Your task to perform on an android device: visit the assistant section in the google photos Image 0: 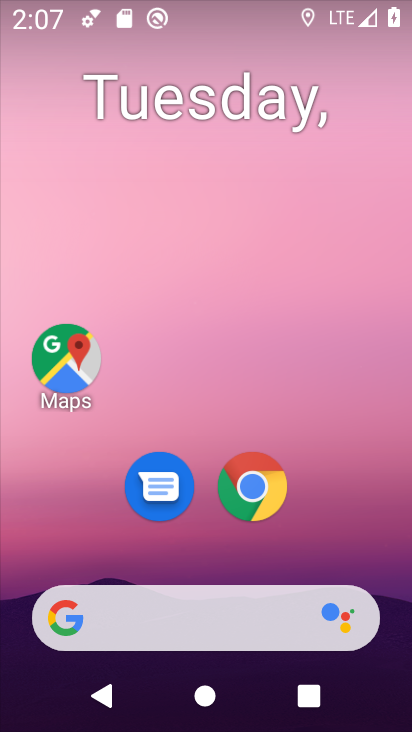
Step 0: press home button
Your task to perform on an android device: visit the assistant section in the google photos Image 1: 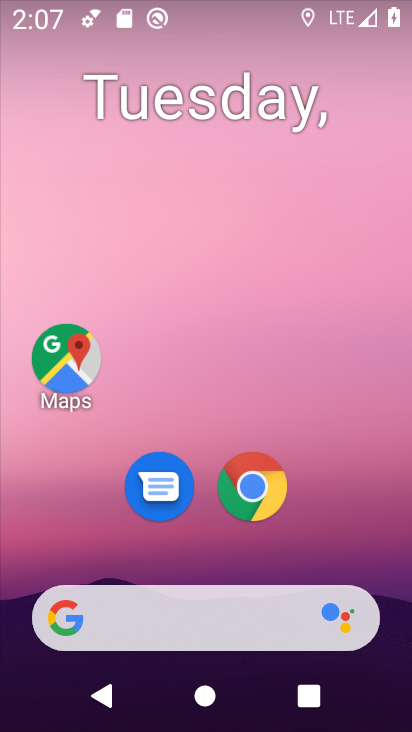
Step 1: drag from (340, 531) to (341, 87)
Your task to perform on an android device: visit the assistant section in the google photos Image 2: 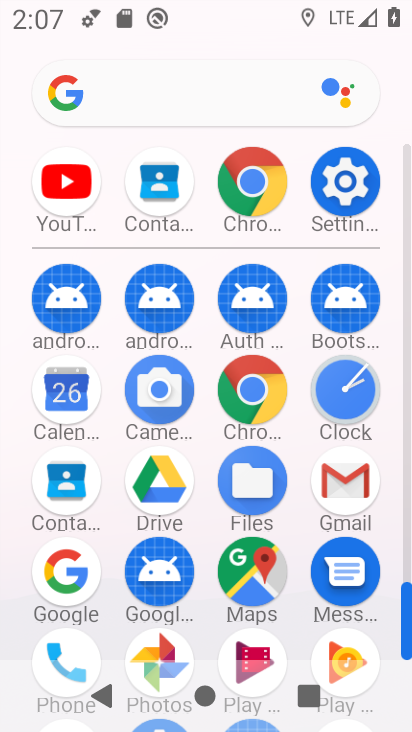
Step 2: drag from (402, 483) to (396, 325)
Your task to perform on an android device: visit the assistant section in the google photos Image 3: 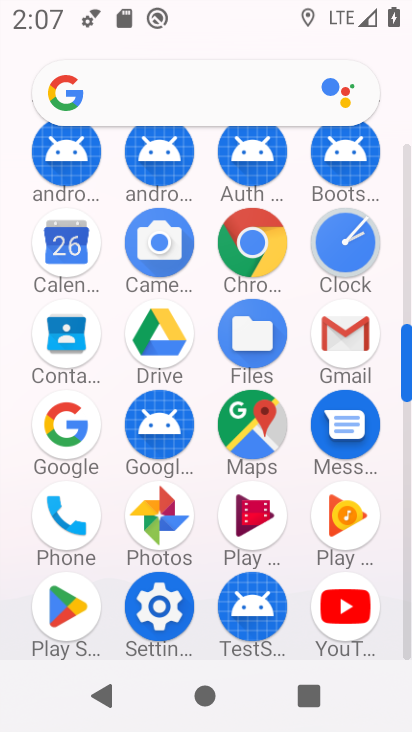
Step 3: click (173, 515)
Your task to perform on an android device: visit the assistant section in the google photos Image 4: 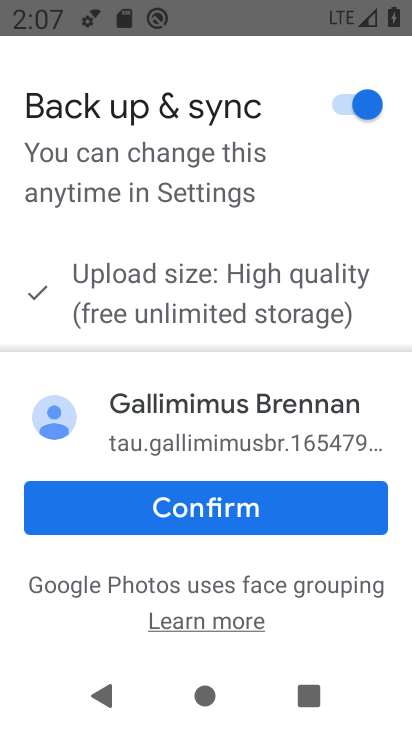
Step 4: click (386, 503)
Your task to perform on an android device: visit the assistant section in the google photos Image 5: 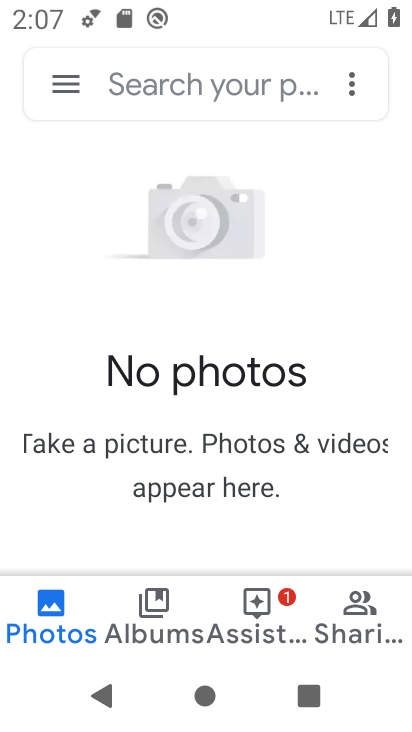
Step 5: click (274, 610)
Your task to perform on an android device: visit the assistant section in the google photos Image 6: 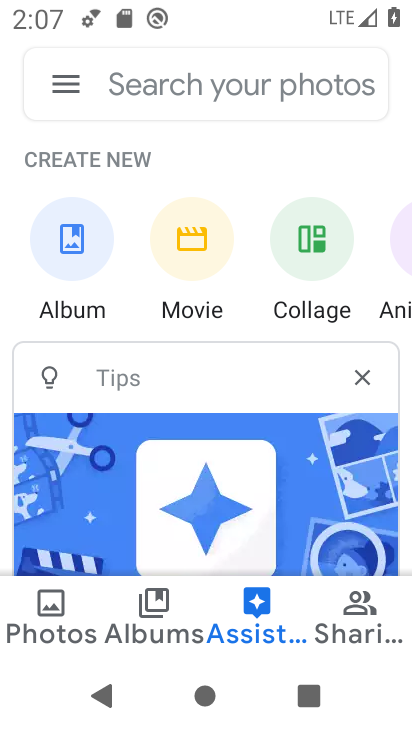
Step 6: task complete